Your task to perform on an android device: Open calendar and show me the fourth week of next month Image 0: 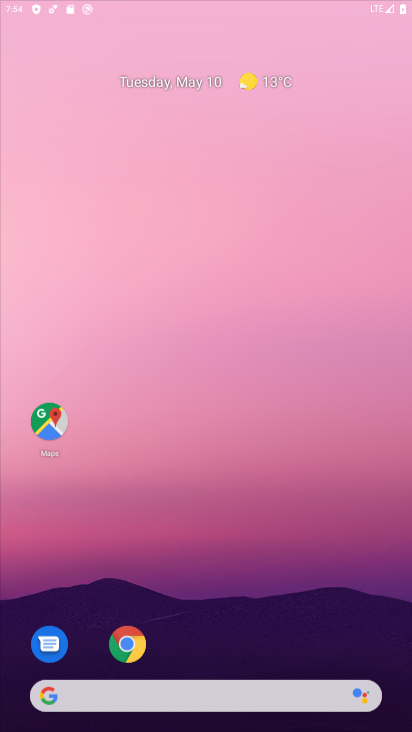
Step 0: drag from (259, 301) to (259, 151)
Your task to perform on an android device: Open calendar and show me the fourth week of next month Image 1: 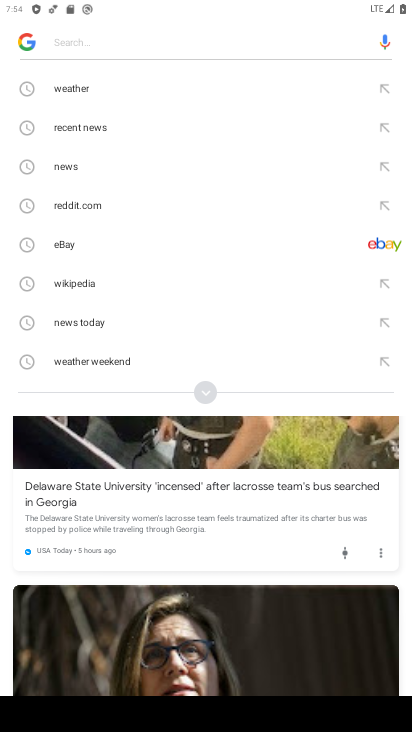
Step 1: press home button
Your task to perform on an android device: Open calendar and show me the fourth week of next month Image 2: 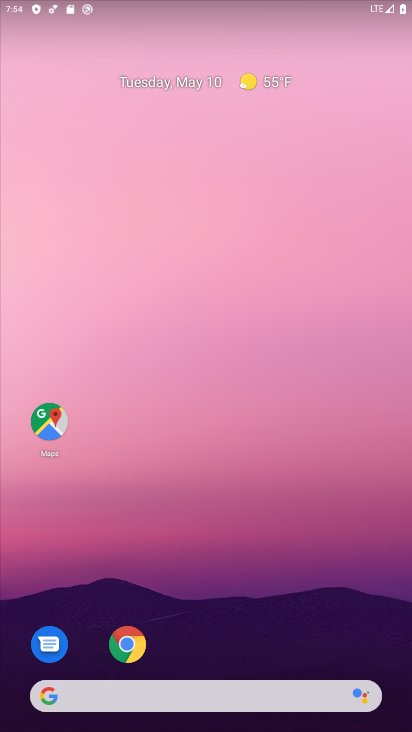
Step 2: drag from (264, 646) to (227, 112)
Your task to perform on an android device: Open calendar and show me the fourth week of next month Image 3: 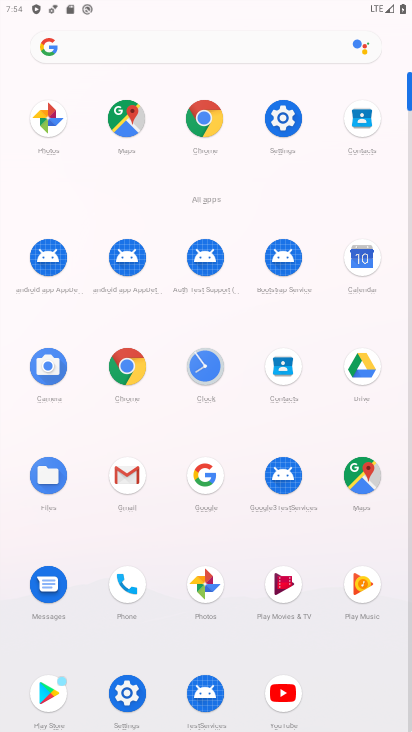
Step 3: click (366, 258)
Your task to perform on an android device: Open calendar and show me the fourth week of next month Image 4: 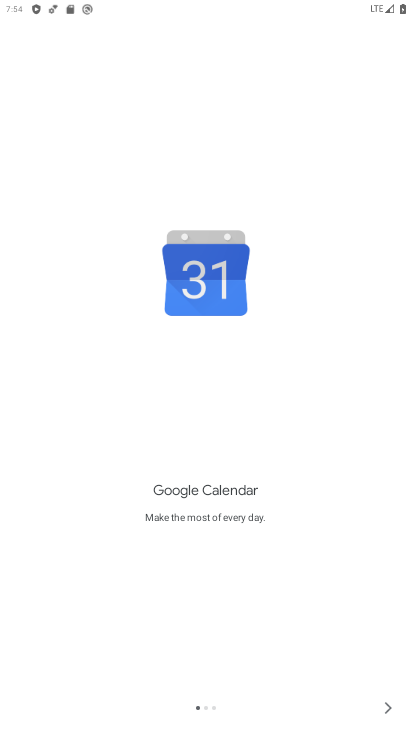
Step 4: click (384, 706)
Your task to perform on an android device: Open calendar and show me the fourth week of next month Image 5: 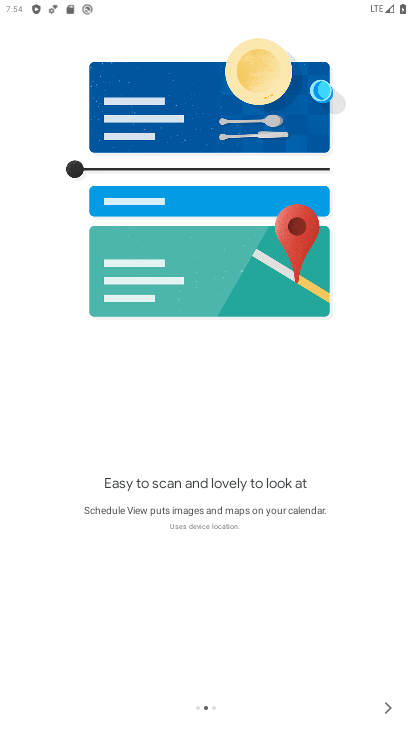
Step 5: click (388, 721)
Your task to perform on an android device: Open calendar and show me the fourth week of next month Image 6: 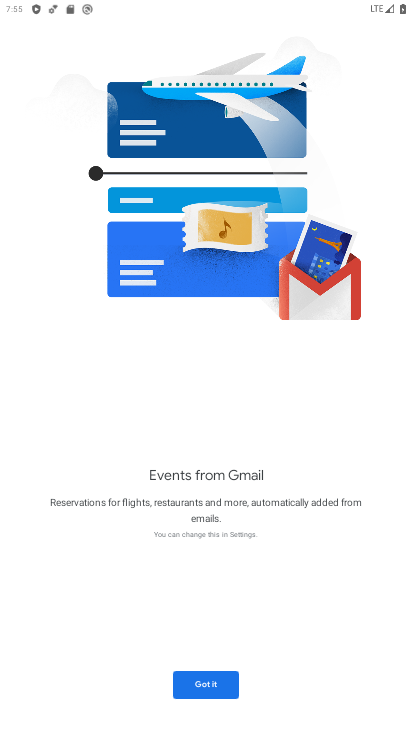
Step 6: click (205, 690)
Your task to perform on an android device: Open calendar and show me the fourth week of next month Image 7: 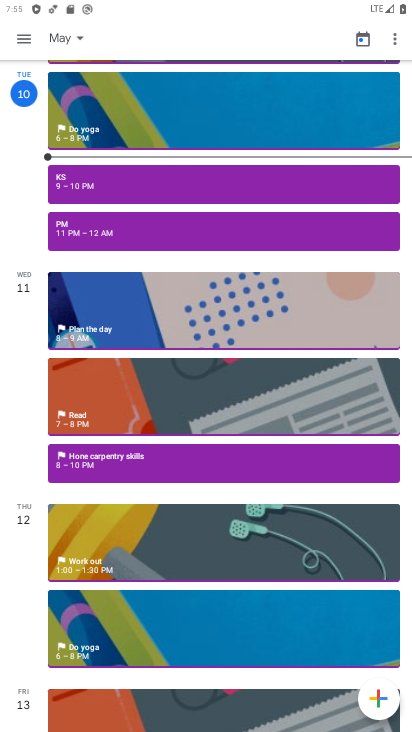
Step 7: click (80, 39)
Your task to perform on an android device: Open calendar and show me the fourth week of next month Image 8: 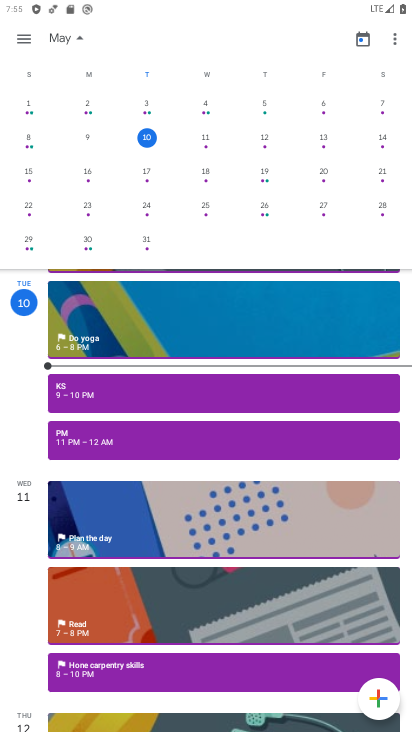
Step 8: drag from (383, 198) to (0, 205)
Your task to perform on an android device: Open calendar and show me the fourth week of next month Image 9: 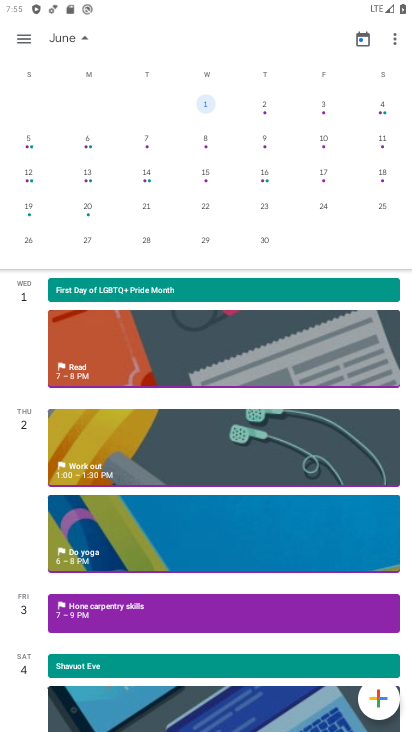
Step 9: drag from (143, 183) to (101, 178)
Your task to perform on an android device: Open calendar and show me the fourth week of next month Image 10: 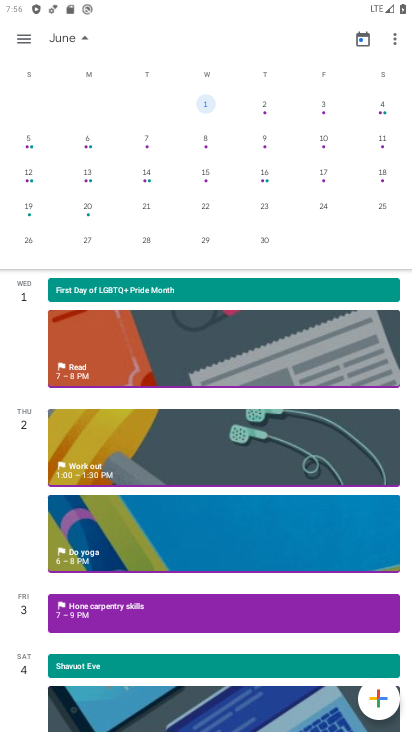
Step 10: click (32, 249)
Your task to perform on an android device: Open calendar and show me the fourth week of next month Image 11: 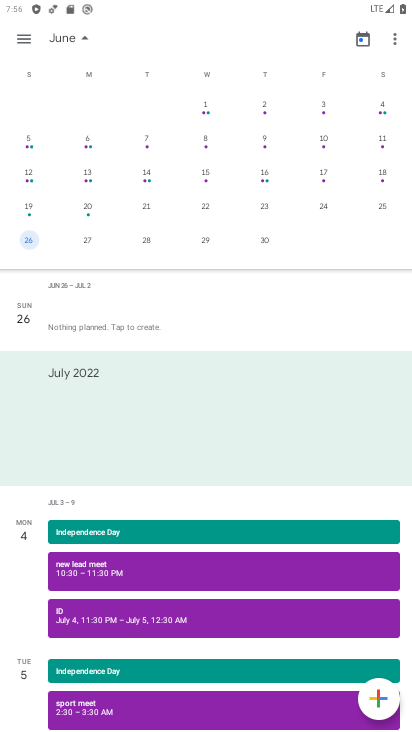
Step 11: task complete